Your task to perform on an android device: Open eBay Image 0: 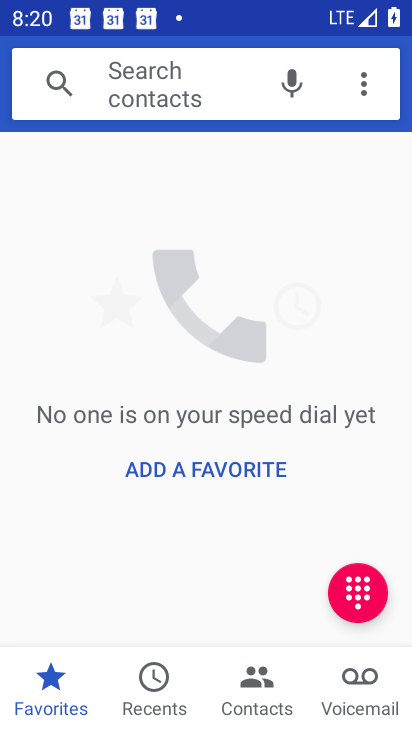
Step 0: press home button
Your task to perform on an android device: Open eBay Image 1: 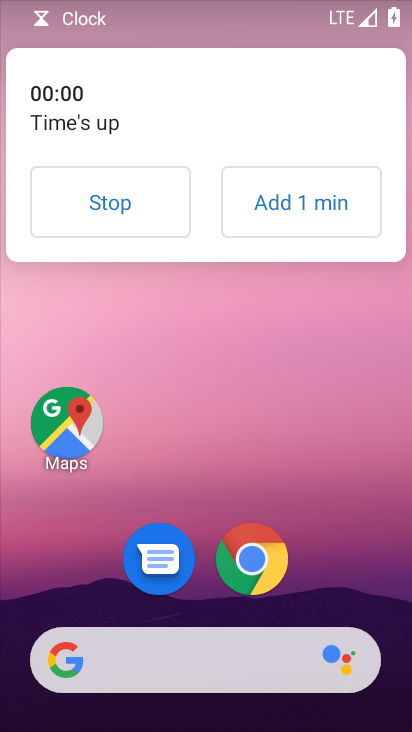
Step 1: click (269, 564)
Your task to perform on an android device: Open eBay Image 2: 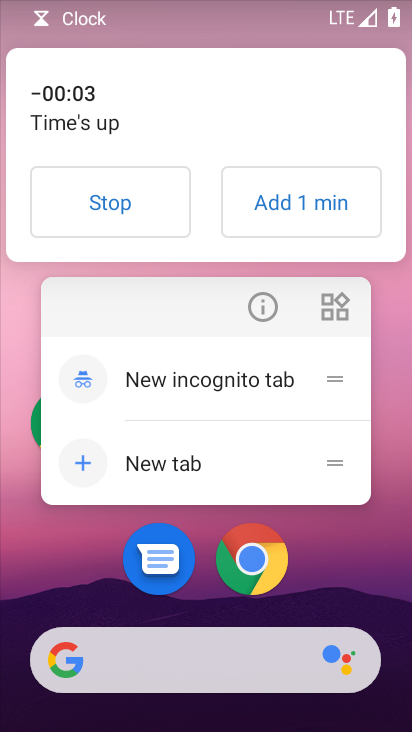
Step 2: click (127, 217)
Your task to perform on an android device: Open eBay Image 3: 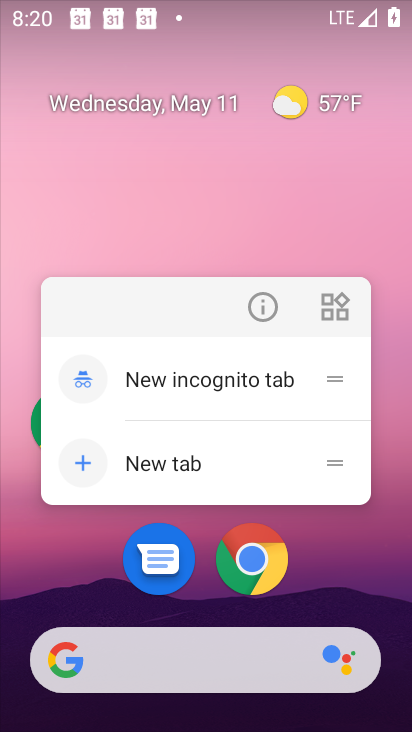
Step 3: click (236, 557)
Your task to perform on an android device: Open eBay Image 4: 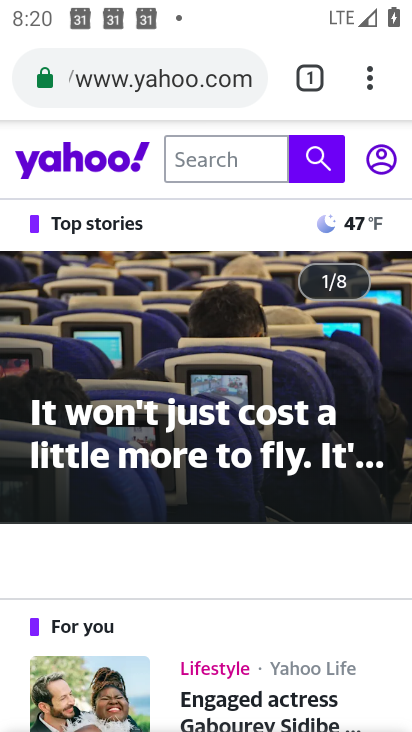
Step 4: click (98, 86)
Your task to perform on an android device: Open eBay Image 5: 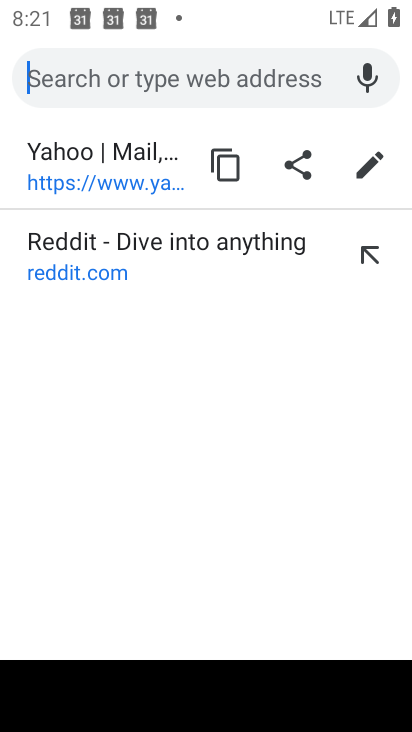
Step 5: type "eBay"
Your task to perform on an android device: Open eBay Image 6: 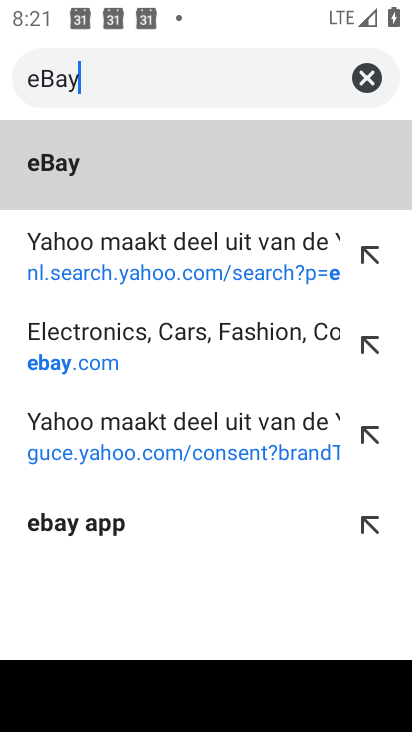
Step 6: click (179, 182)
Your task to perform on an android device: Open eBay Image 7: 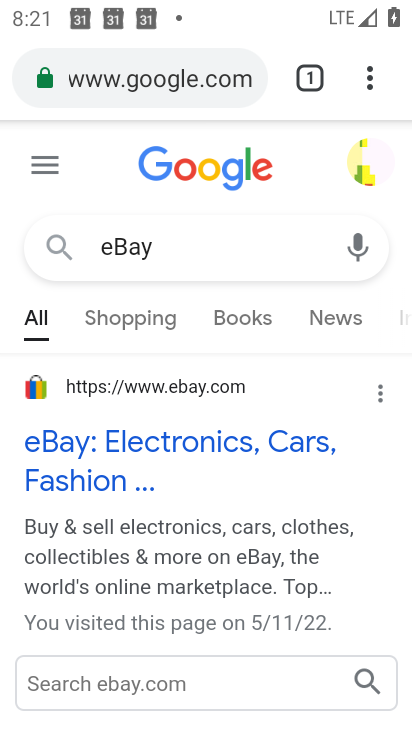
Step 7: click (34, 459)
Your task to perform on an android device: Open eBay Image 8: 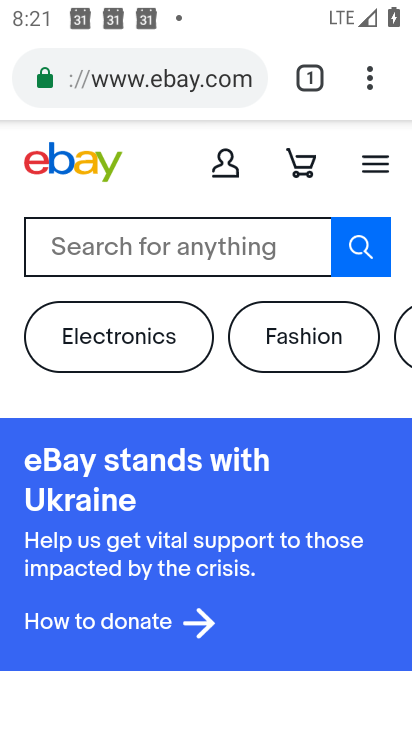
Step 8: task complete